Your task to perform on an android device: allow notifications from all sites in the chrome app Image 0: 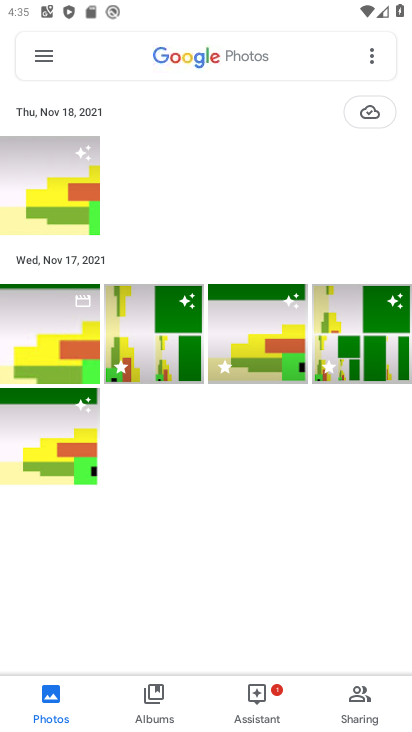
Step 0: press home button
Your task to perform on an android device: allow notifications from all sites in the chrome app Image 1: 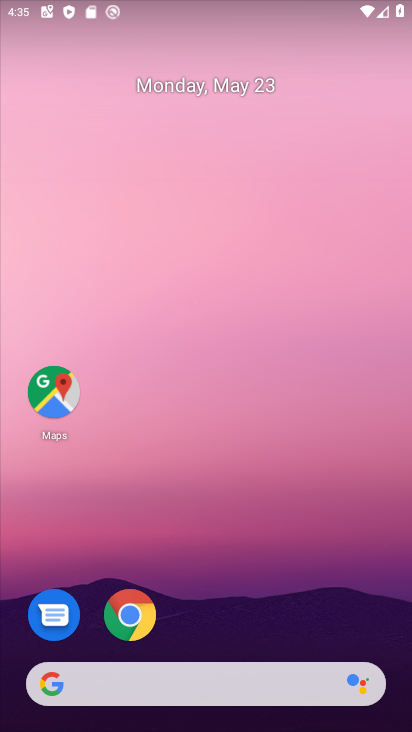
Step 1: click (124, 617)
Your task to perform on an android device: allow notifications from all sites in the chrome app Image 2: 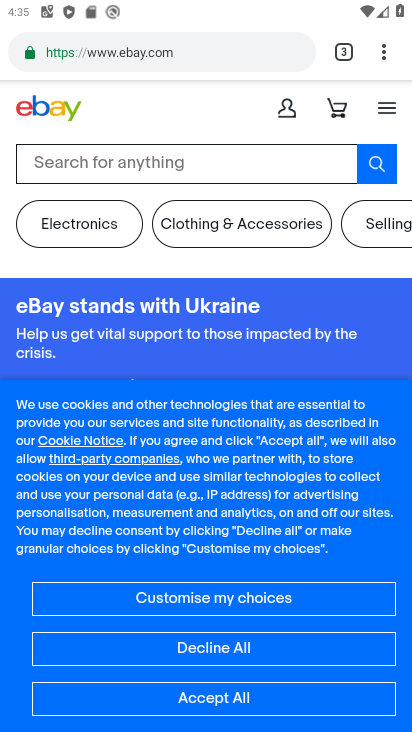
Step 2: drag from (382, 47) to (197, 621)
Your task to perform on an android device: allow notifications from all sites in the chrome app Image 3: 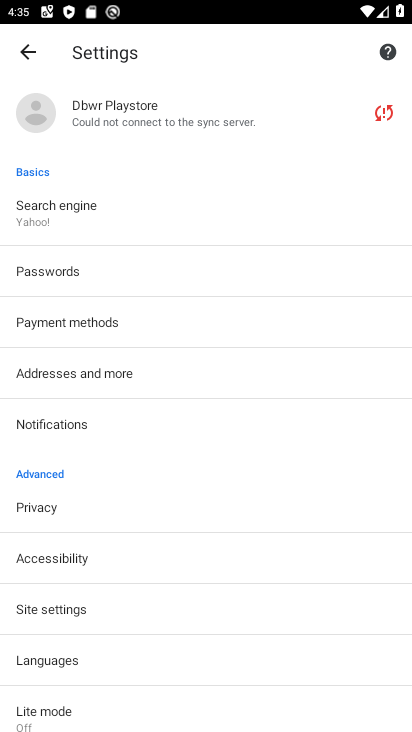
Step 3: click (55, 612)
Your task to perform on an android device: allow notifications from all sites in the chrome app Image 4: 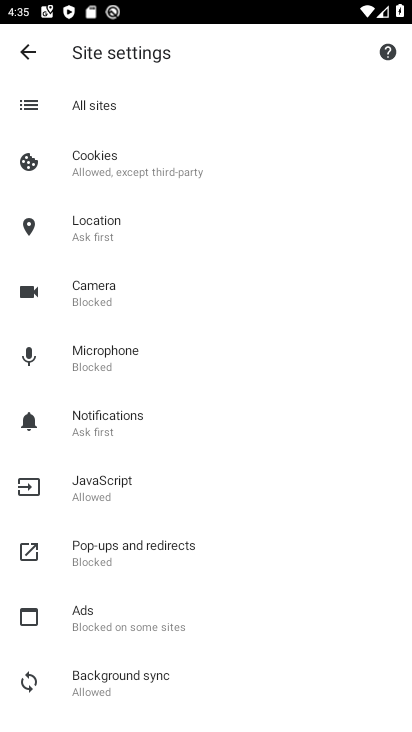
Step 4: click (130, 415)
Your task to perform on an android device: allow notifications from all sites in the chrome app Image 5: 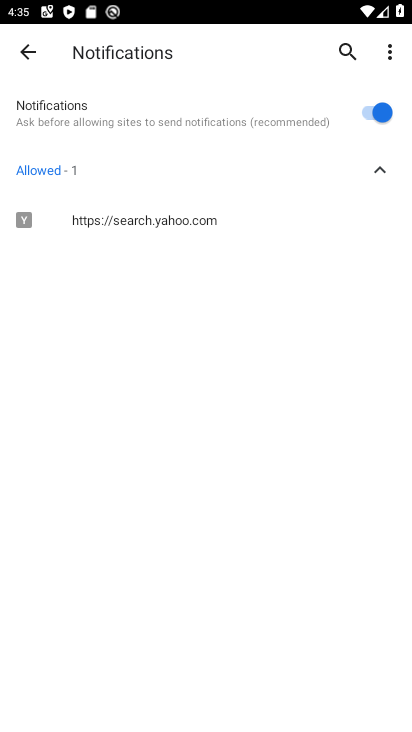
Step 5: task complete